Your task to perform on an android device: turn off notifications in google photos Image 0: 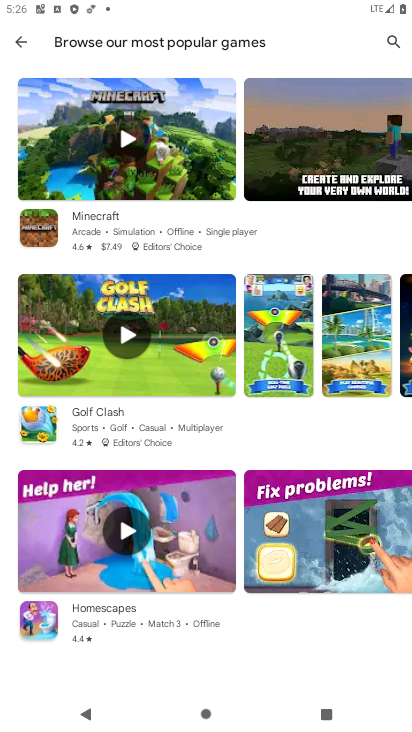
Step 0: press home button
Your task to perform on an android device: turn off notifications in google photos Image 1: 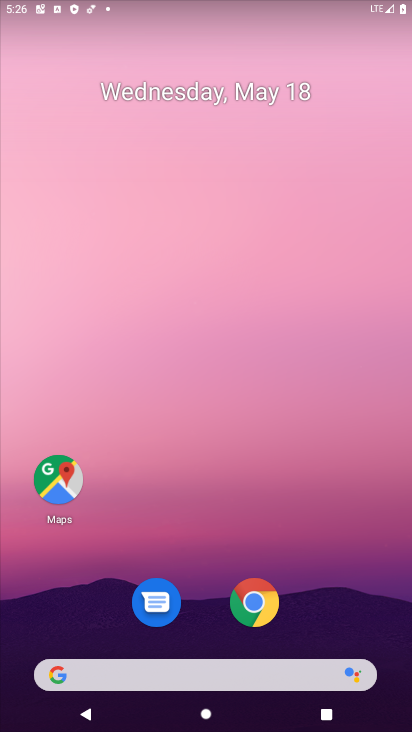
Step 1: drag from (312, 693) to (234, 6)
Your task to perform on an android device: turn off notifications in google photos Image 2: 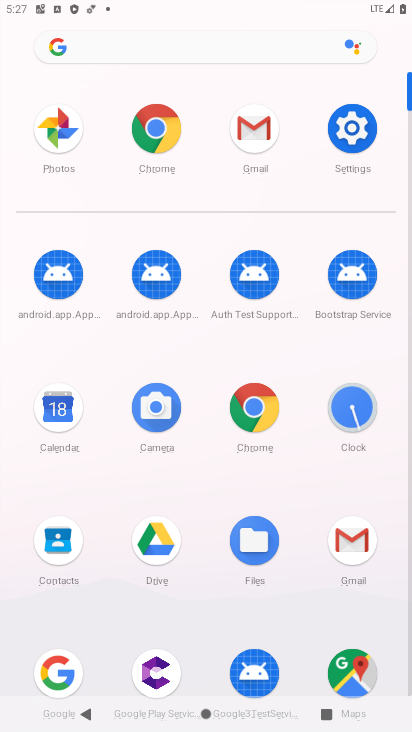
Step 2: drag from (293, 643) to (312, 269)
Your task to perform on an android device: turn off notifications in google photos Image 3: 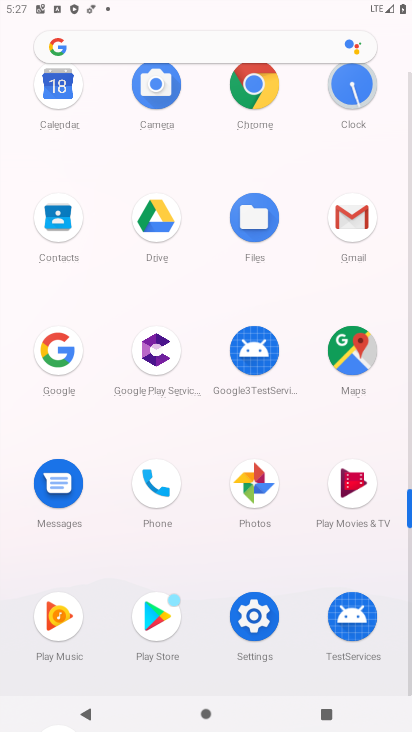
Step 3: click (239, 475)
Your task to perform on an android device: turn off notifications in google photos Image 4: 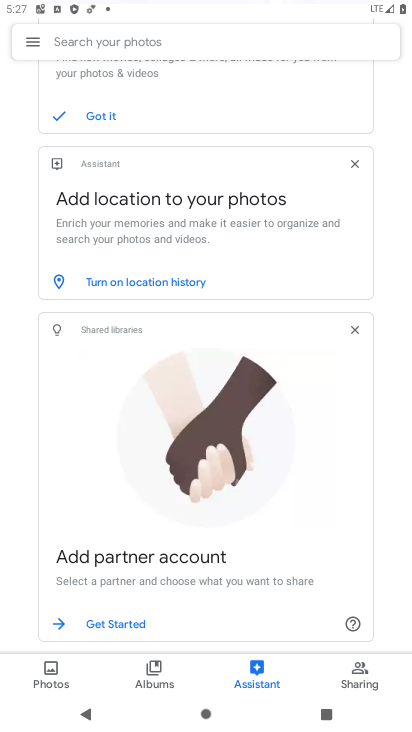
Step 4: click (37, 46)
Your task to perform on an android device: turn off notifications in google photos Image 5: 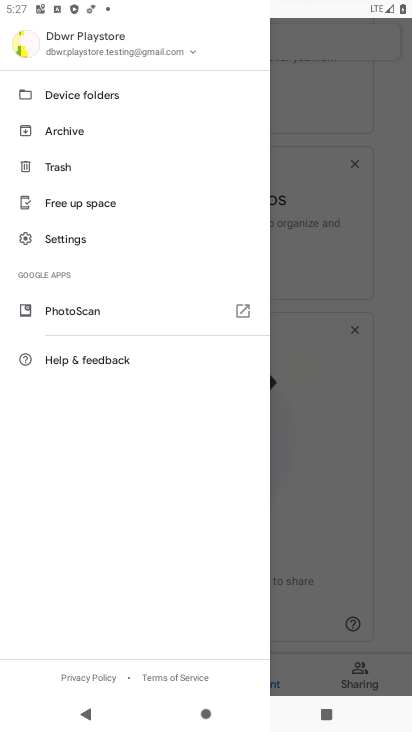
Step 5: click (68, 241)
Your task to perform on an android device: turn off notifications in google photos Image 6: 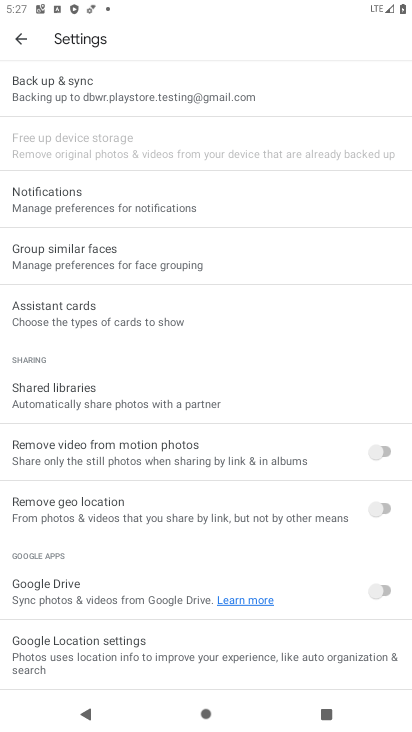
Step 6: click (142, 188)
Your task to perform on an android device: turn off notifications in google photos Image 7: 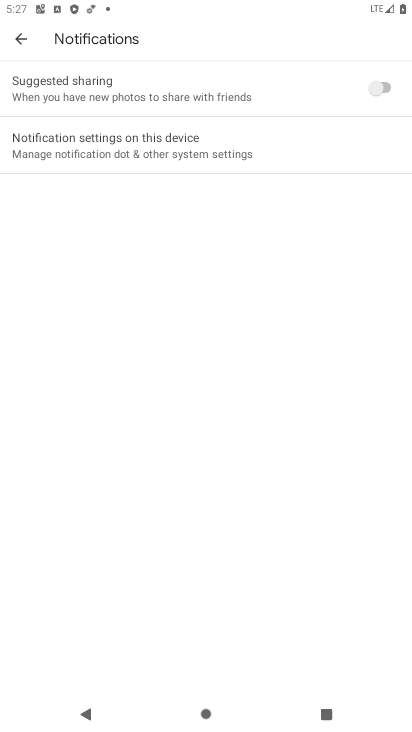
Step 7: click (160, 150)
Your task to perform on an android device: turn off notifications in google photos Image 8: 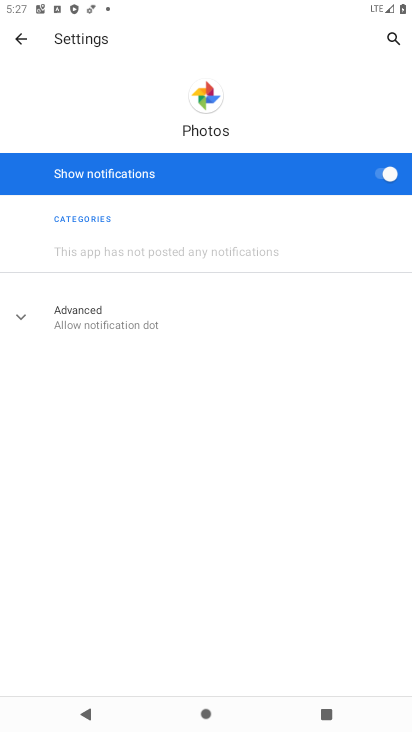
Step 8: click (383, 178)
Your task to perform on an android device: turn off notifications in google photos Image 9: 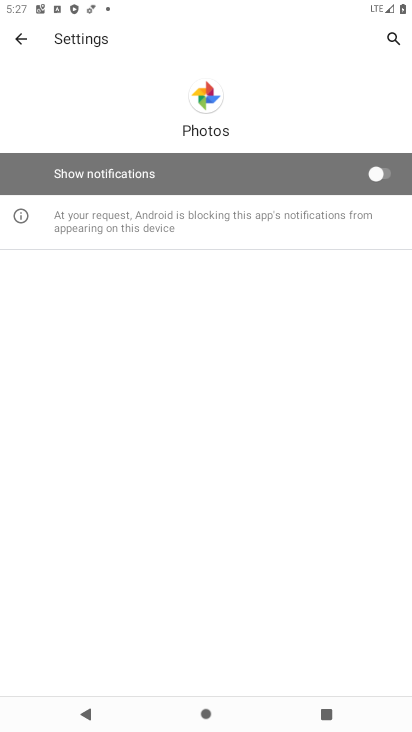
Step 9: task complete